Your task to perform on an android device: Open CNN.com Image 0: 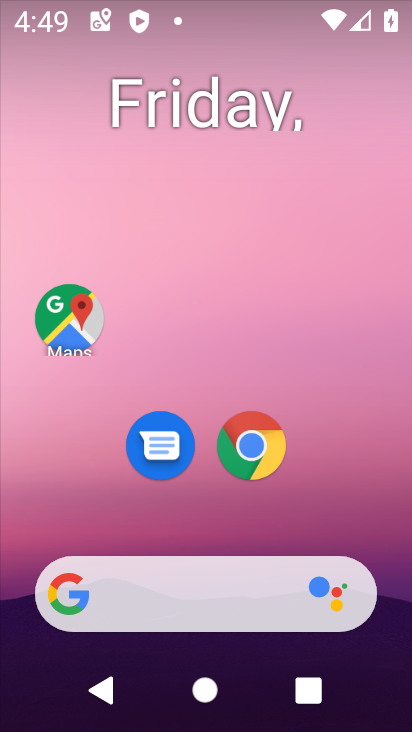
Step 0: click (254, 450)
Your task to perform on an android device: Open CNN.com Image 1: 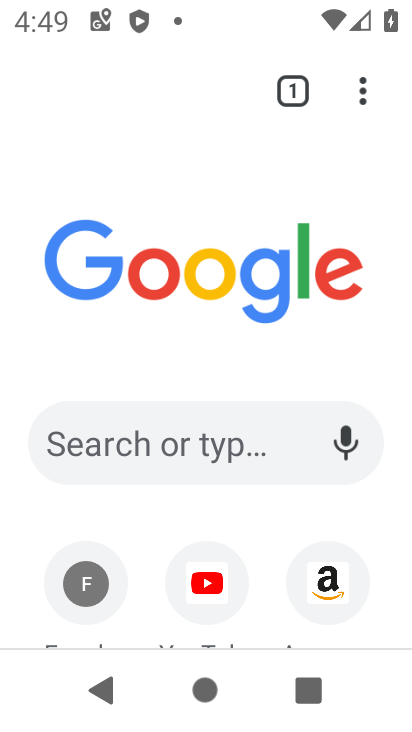
Step 1: click (209, 442)
Your task to perform on an android device: Open CNN.com Image 2: 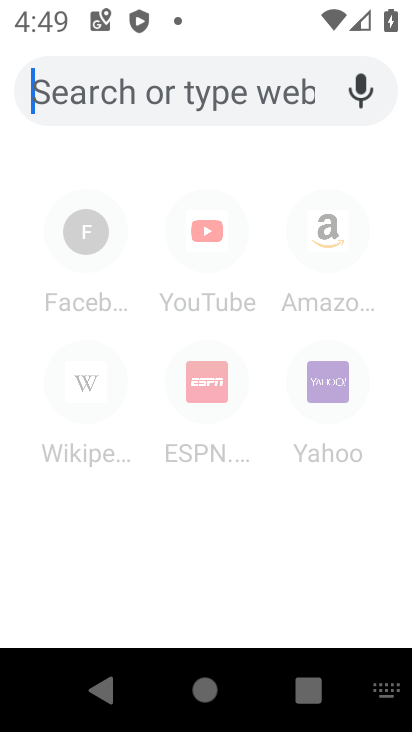
Step 2: type "cnn.com"
Your task to perform on an android device: Open CNN.com Image 3: 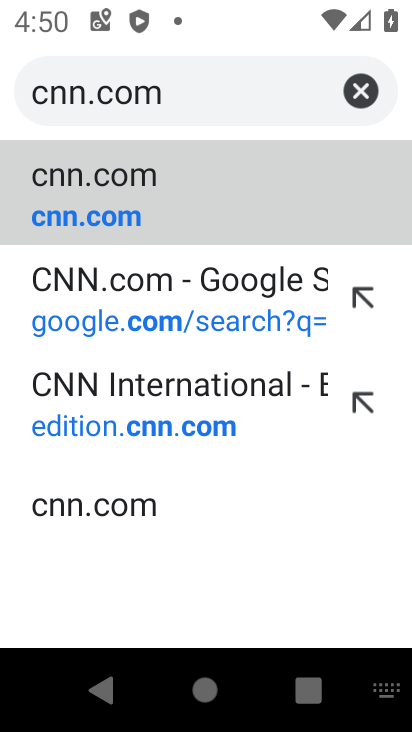
Step 3: click (126, 220)
Your task to perform on an android device: Open CNN.com Image 4: 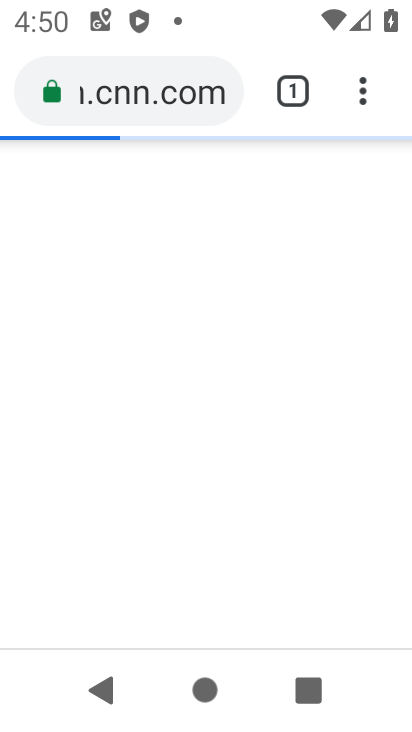
Step 4: task complete